Your task to perform on an android device: Go to Amazon Image 0: 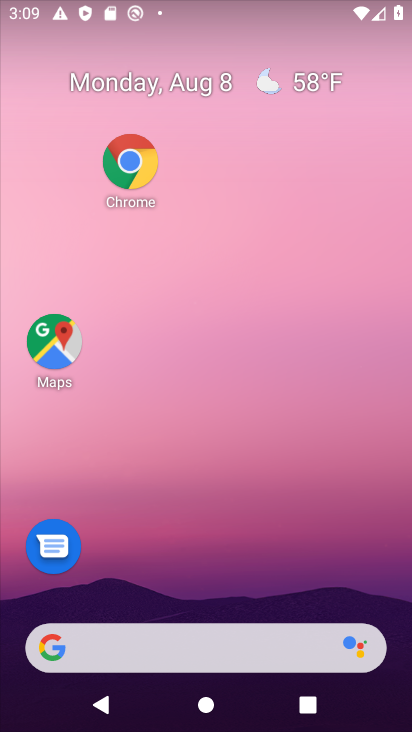
Step 0: click (130, 147)
Your task to perform on an android device: Go to Amazon Image 1: 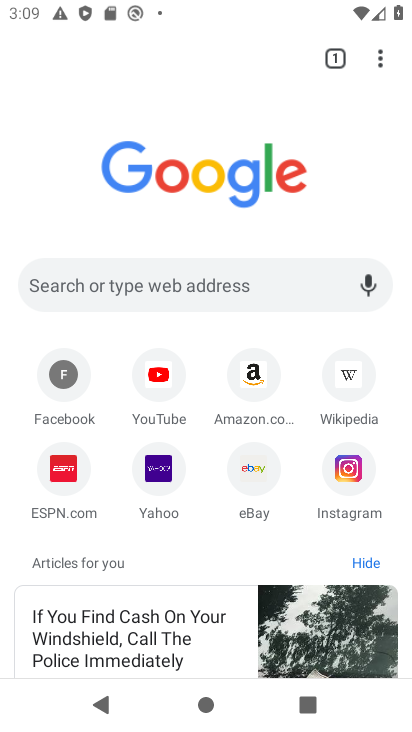
Step 1: click (255, 370)
Your task to perform on an android device: Go to Amazon Image 2: 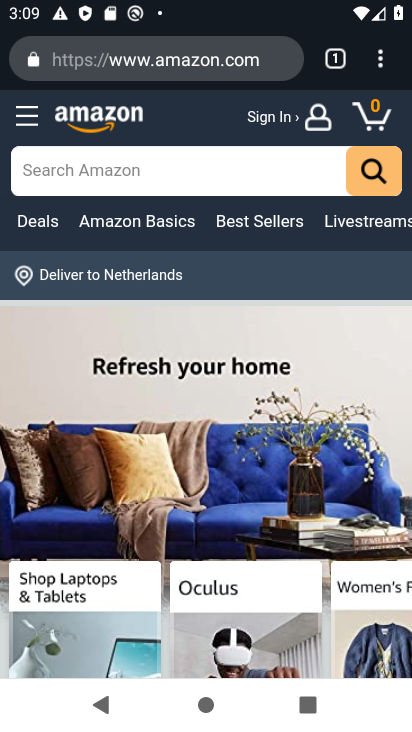
Step 2: task complete